Your task to perform on an android device: turn on notifications settings in the gmail app Image 0: 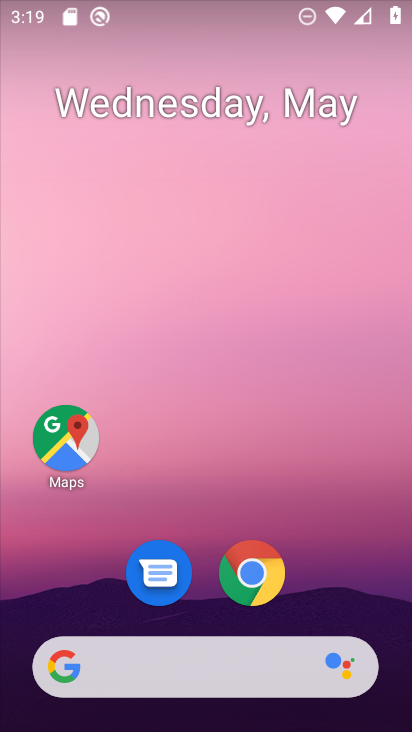
Step 0: drag from (324, 593) to (267, 0)
Your task to perform on an android device: turn on notifications settings in the gmail app Image 1: 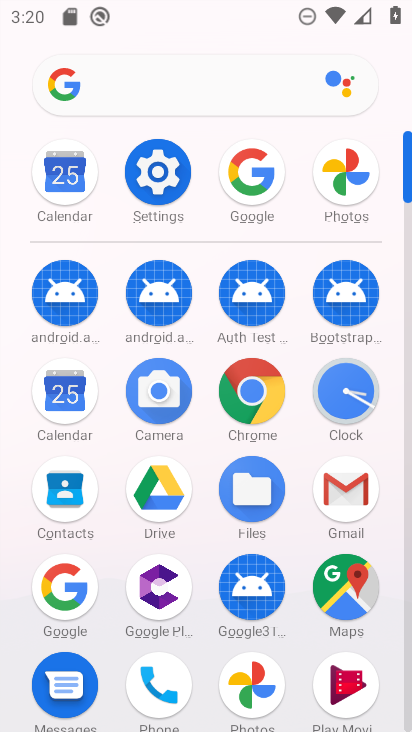
Step 1: click (339, 492)
Your task to perform on an android device: turn on notifications settings in the gmail app Image 2: 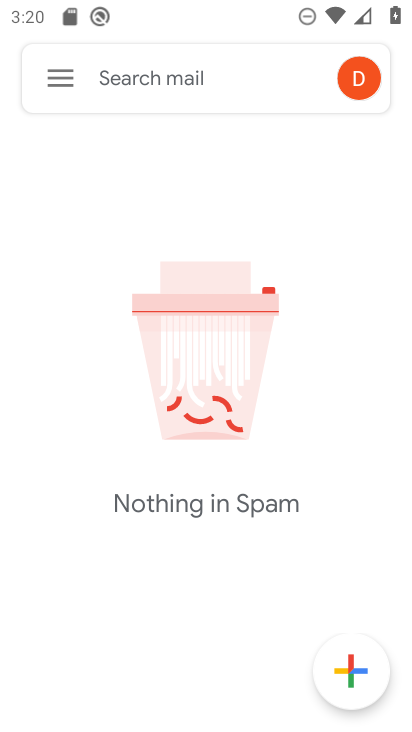
Step 2: click (66, 76)
Your task to perform on an android device: turn on notifications settings in the gmail app Image 3: 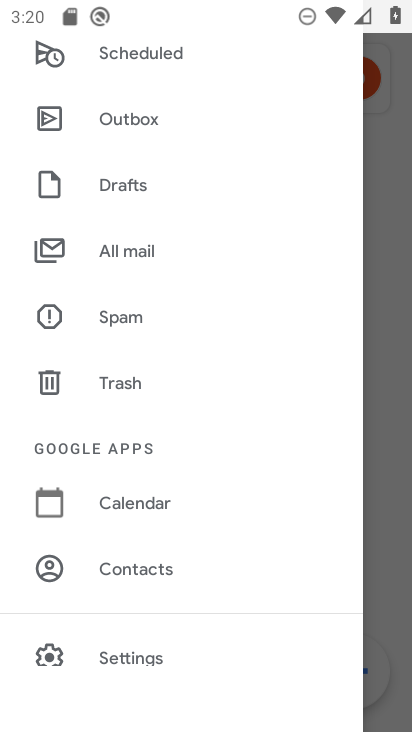
Step 3: click (166, 647)
Your task to perform on an android device: turn on notifications settings in the gmail app Image 4: 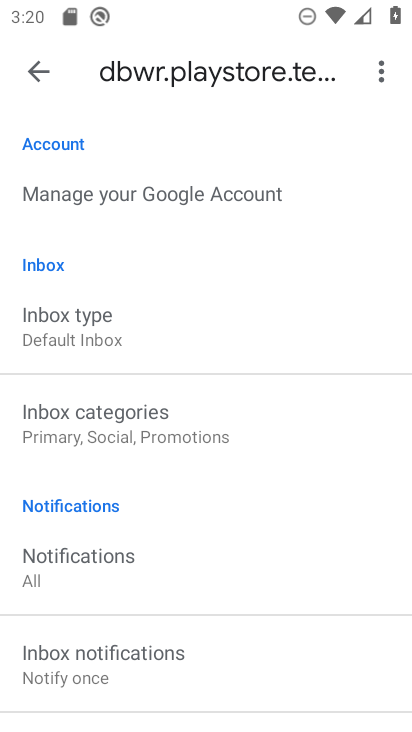
Step 4: drag from (151, 689) to (202, 418)
Your task to perform on an android device: turn on notifications settings in the gmail app Image 5: 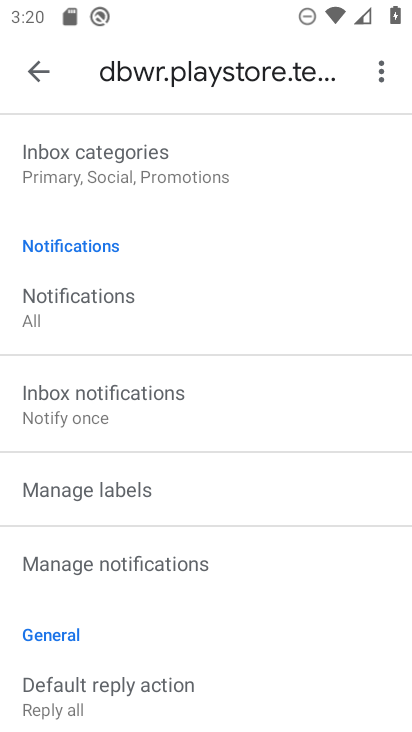
Step 5: click (158, 573)
Your task to perform on an android device: turn on notifications settings in the gmail app Image 6: 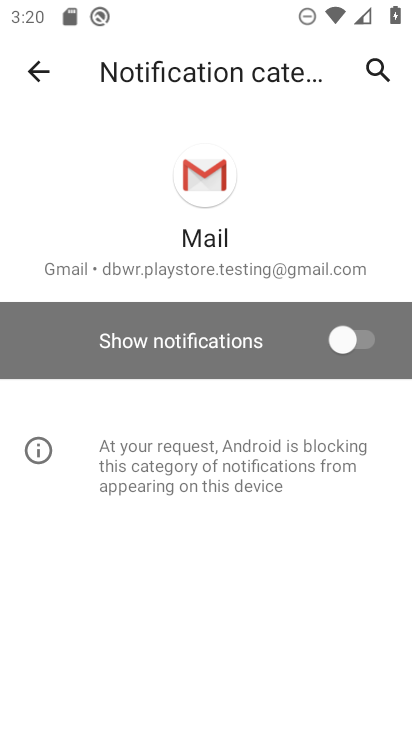
Step 6: click (375, 333)
Your task to perform on an android device: turn on notifications settings in the gmail app Image 7: 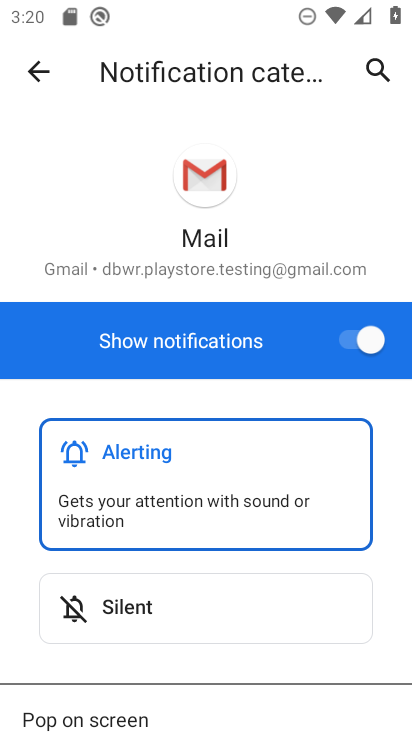
Step 7: task complete